Your task to perform on an android device: open a new tab in the chrome app Image 0: 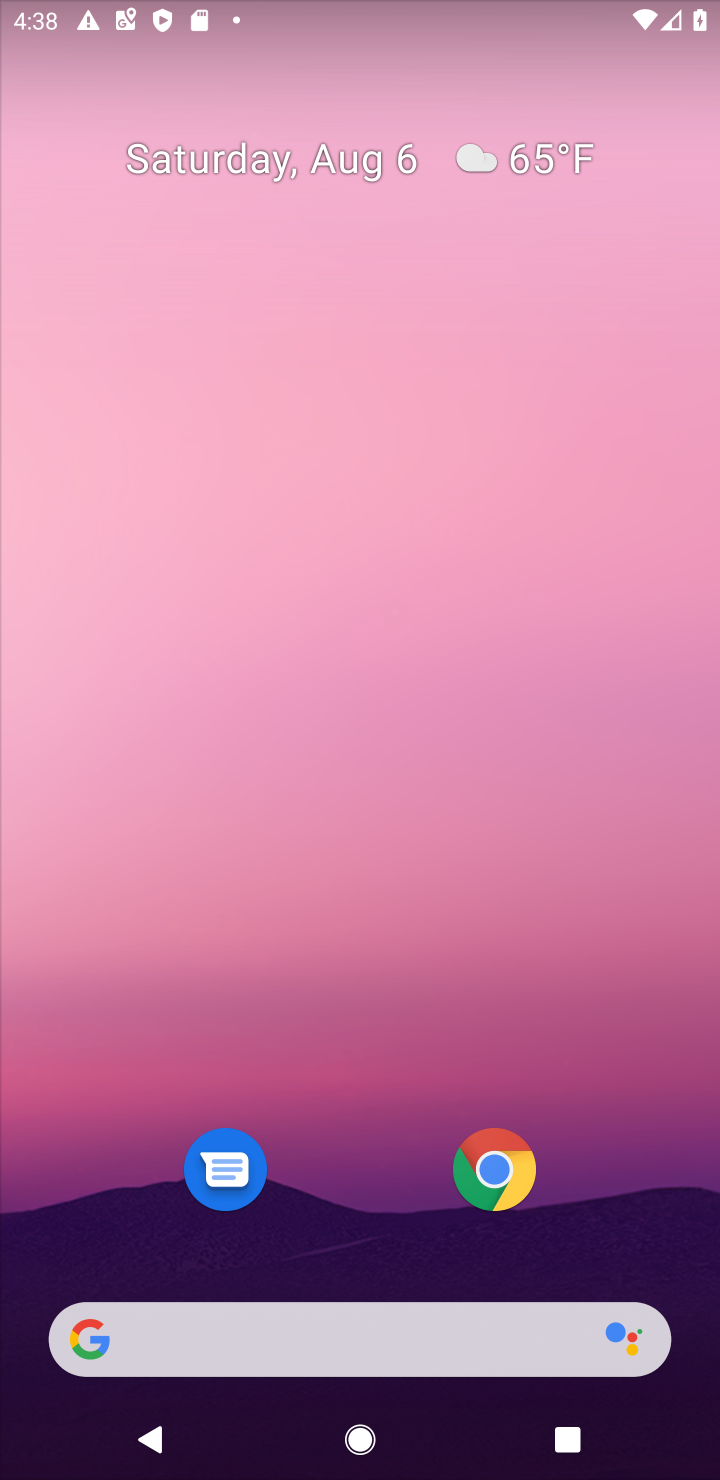
Step 0: press home button
Your task to perform on an android device: open a new tab in the chrome app Image 1: 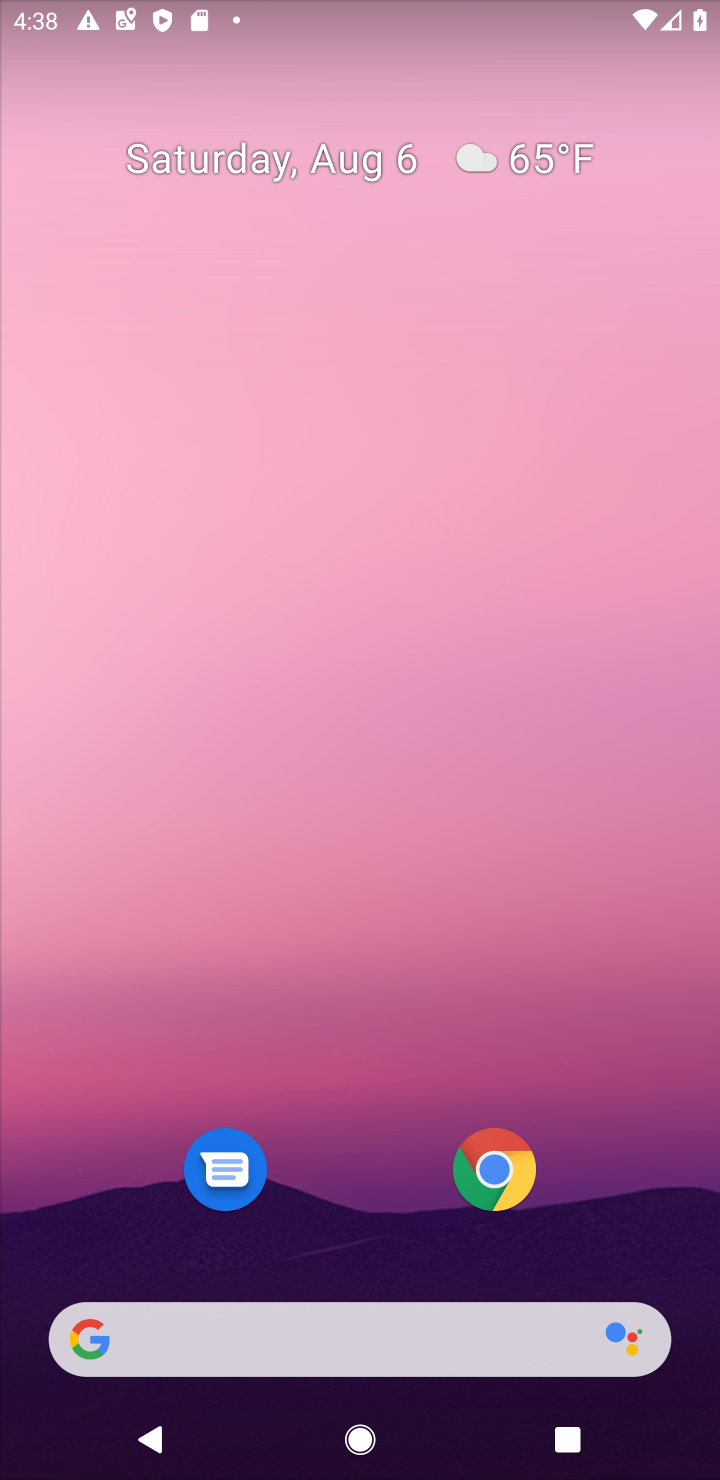
Step 1: click (490, 1173)
Your task to perform on an android device: open a new tab in the chrome app Image 2: 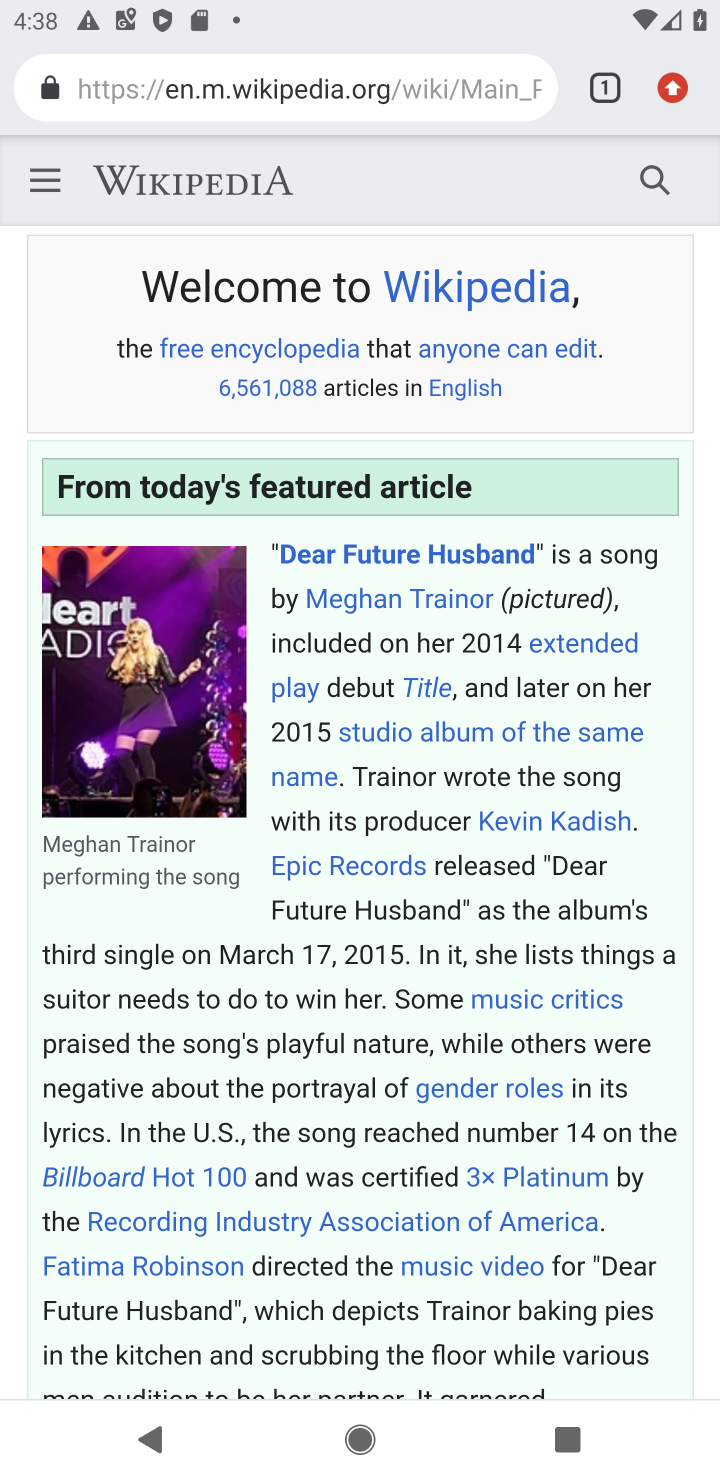
Step 2: click (687, 77)
Your task to perform on an android device: open a new tab in the chrome app Image 3: 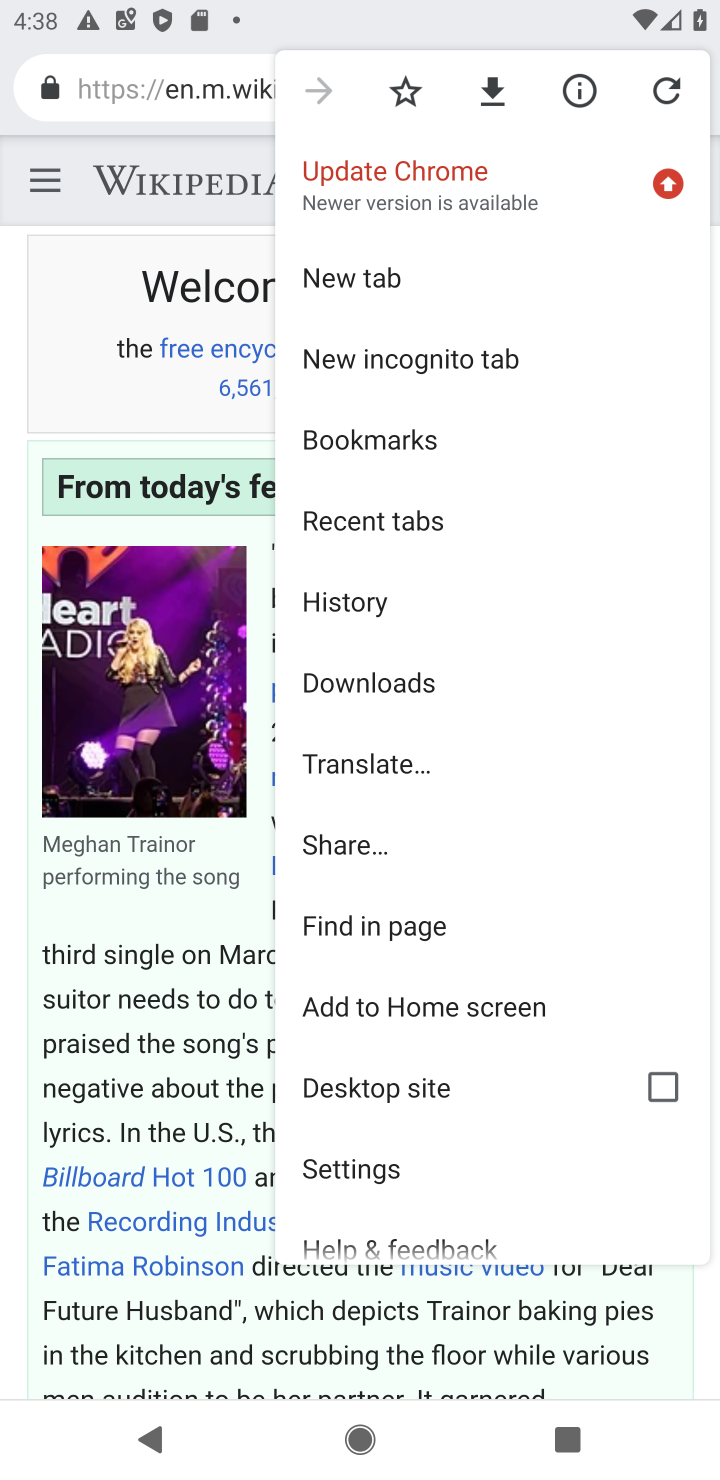
Step 3: click (473, 286)
Your task to perform on an android device: open a new tab in the chrome app Image 4: 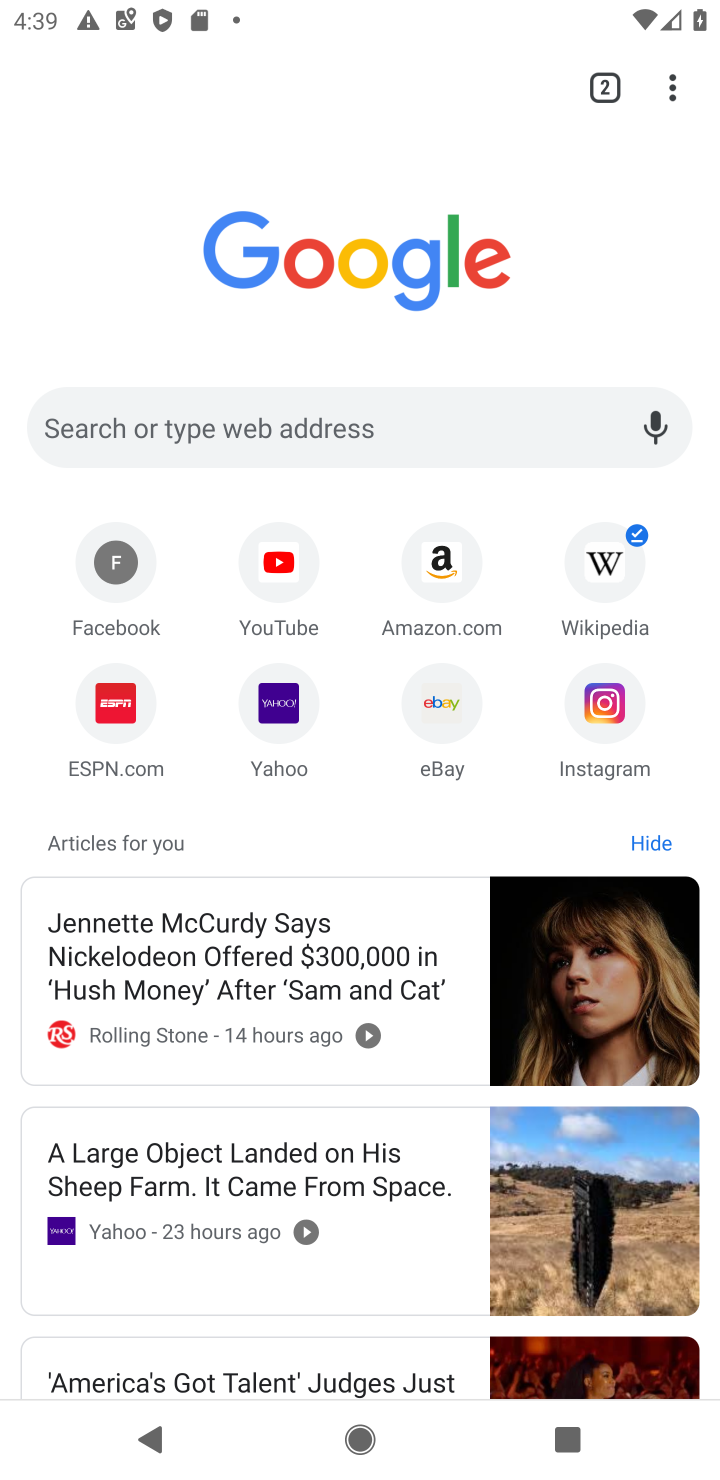
Step 4: task complete